Your task to perform on an android device: Open notification settings Image 0: 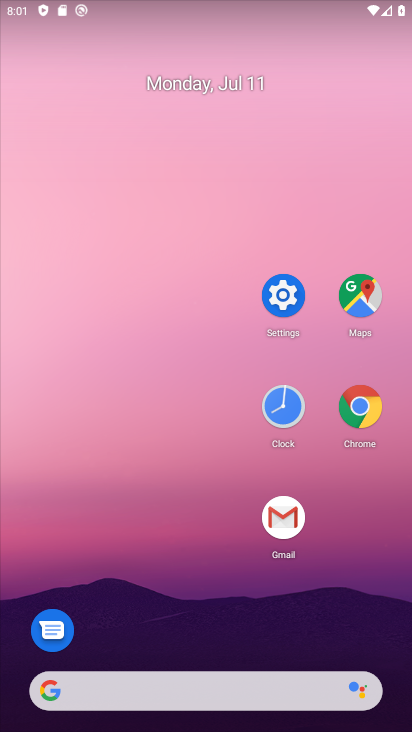
Step 0: click (271, 298)
Your task to perform on an android device: Open notification settings Image 1: 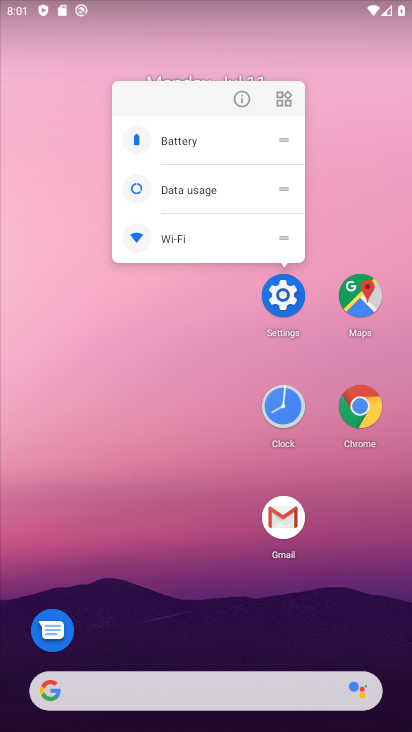
Step 1: click (267, 294)
Your task to perform on an android device: Open notification settings Image 2: 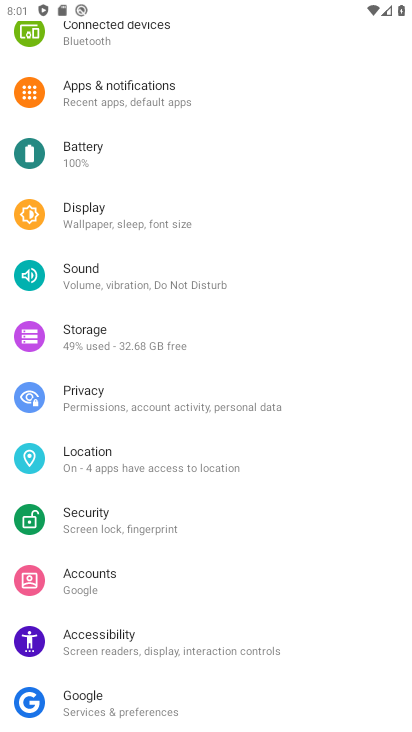
Step 2: click (152, 96)
Your task to perform on an android device: Open notification settings Image 3: 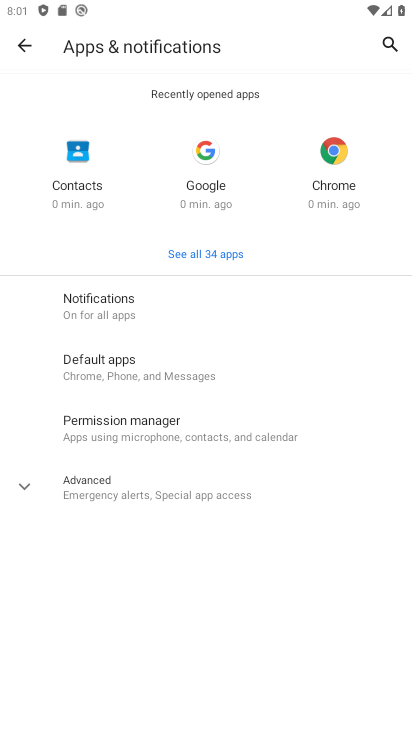
Step 3: task complete